Your task to perform on an android device: Open Chrome and go to the settings page Image 0: 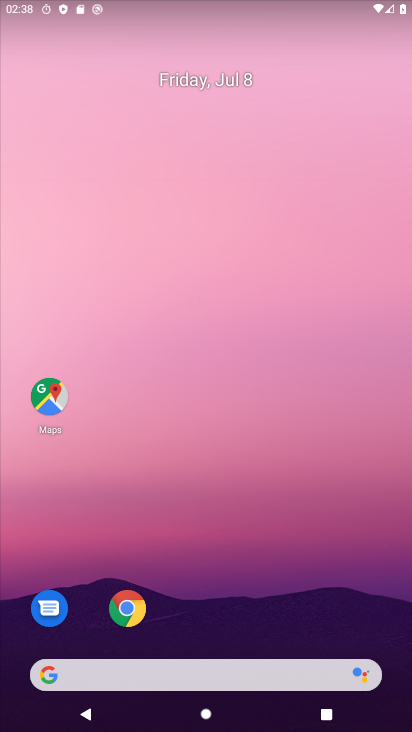
Step 0: click (132, 605)
Your task to perform on an android device: Open Chrome and go to the settings page Image 1: 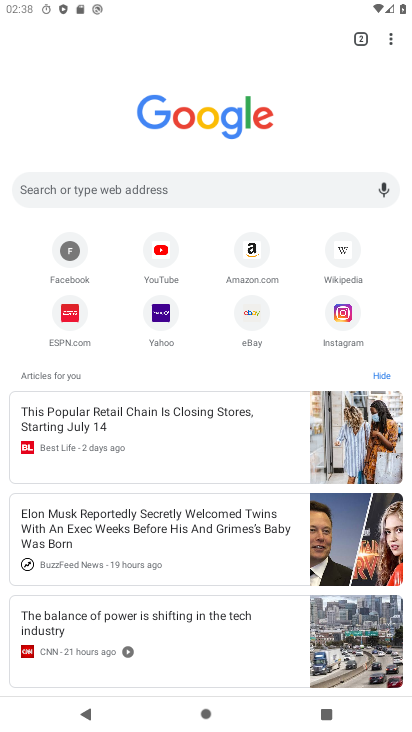
Step 1: click (387, 43)
Your task to perform on an android device: Open Chrome and go to the settings page Image 2: 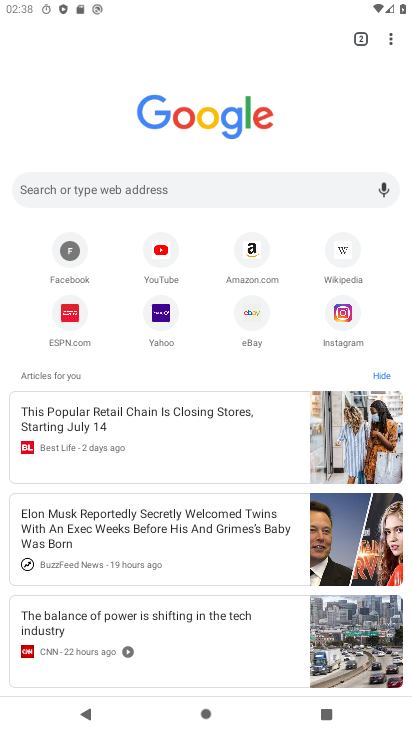
Step 2: click (385, 46)
Your task to perform on an android device: Open Chrome and go to the settings page Image 3: 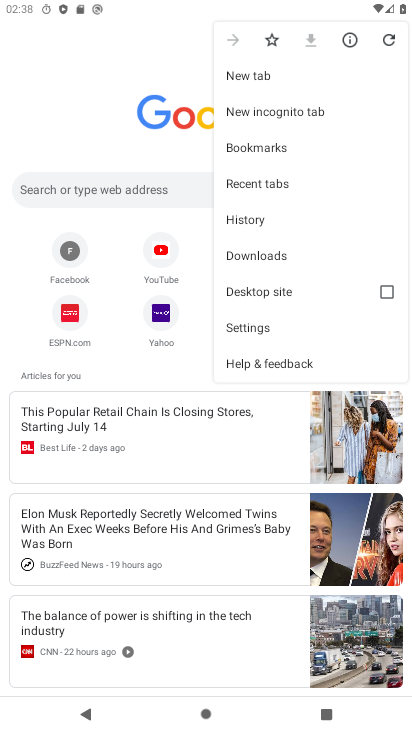
Step 3: click (278, 325)
Your task to perform on an android device: Open Chrome and go to the settings page Image 4: 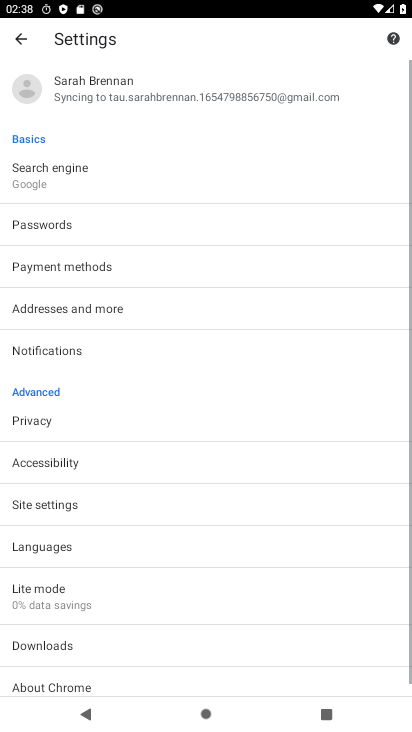
Step 4: task complete